Your task to perform on an android device: turn vacation reply on in the gmail app Image 0: 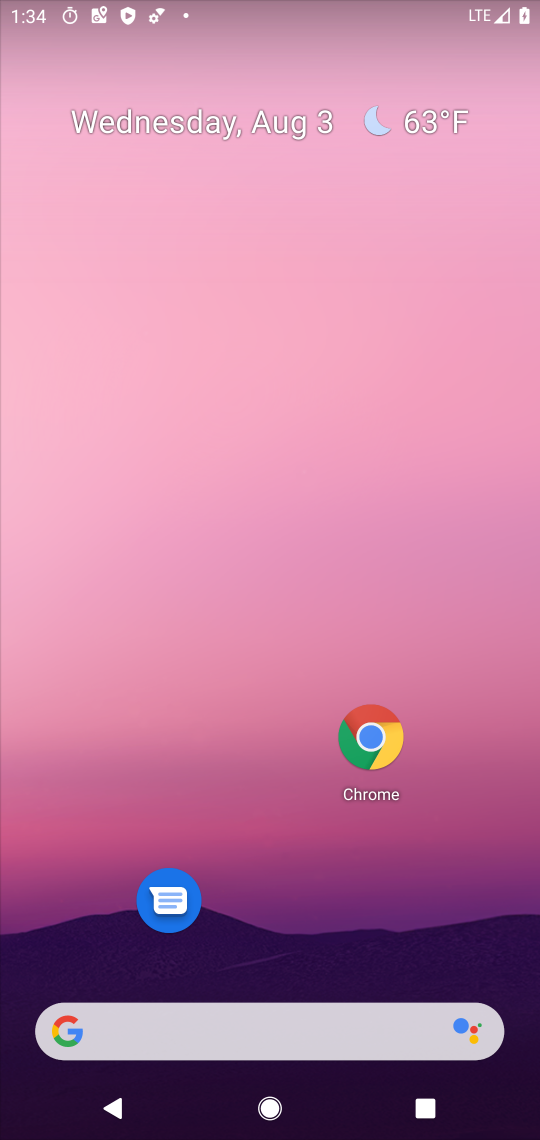
Step 0: drag from (262, 701) to (314, 61)
Your task to perform on an android device: turn vacation reply on in the gmail app Image 1: 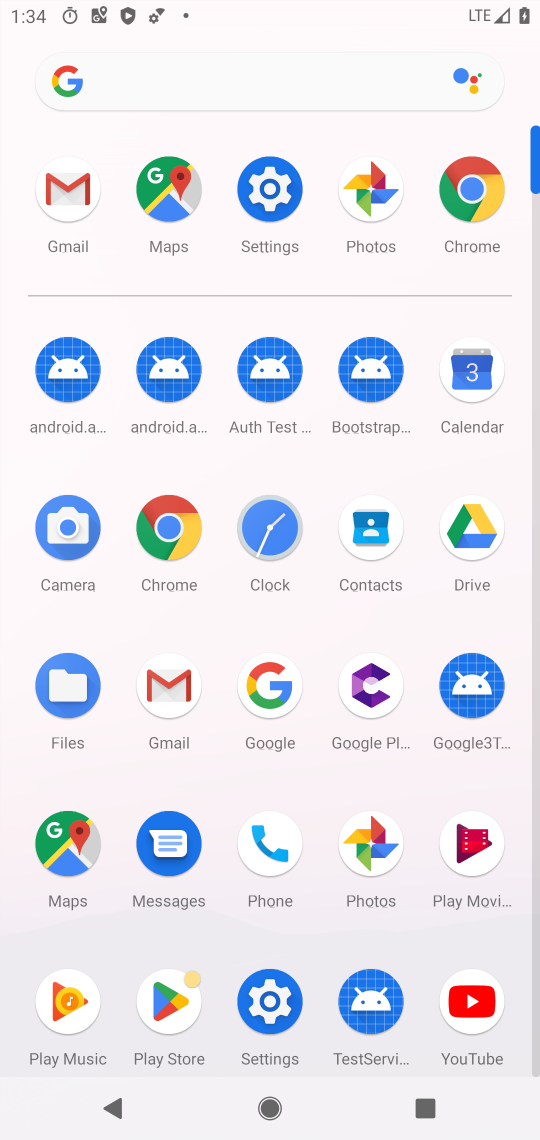
Step 1: click (82, 181)
Your task to perform on an android device: turn vacation reply on in the gmail app Image 2: 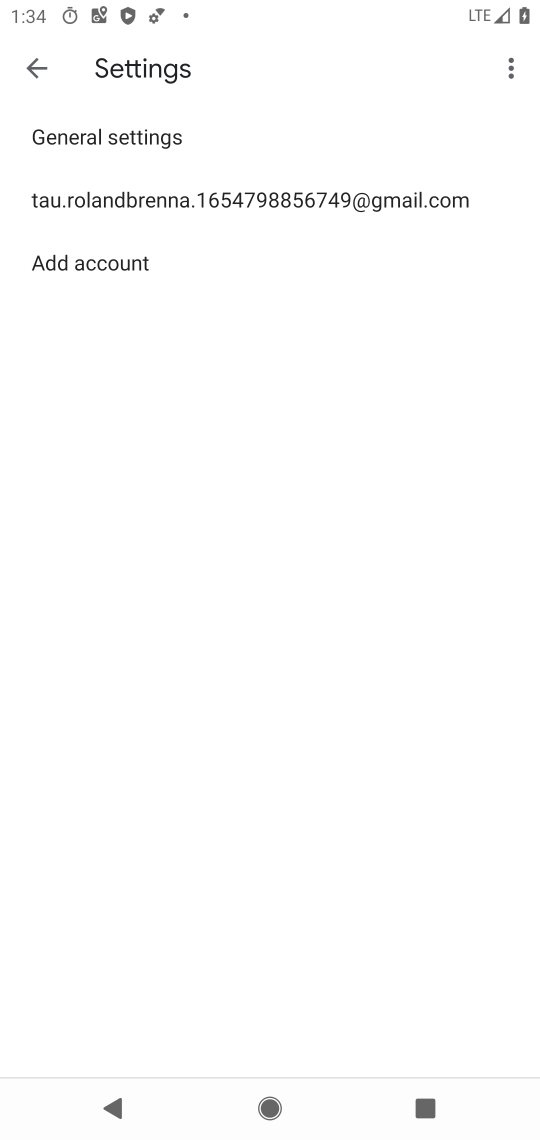
Step 2: click (154, 202)
Your task to perform on an android device: turn vacation reply on in the gmail app Image 3: 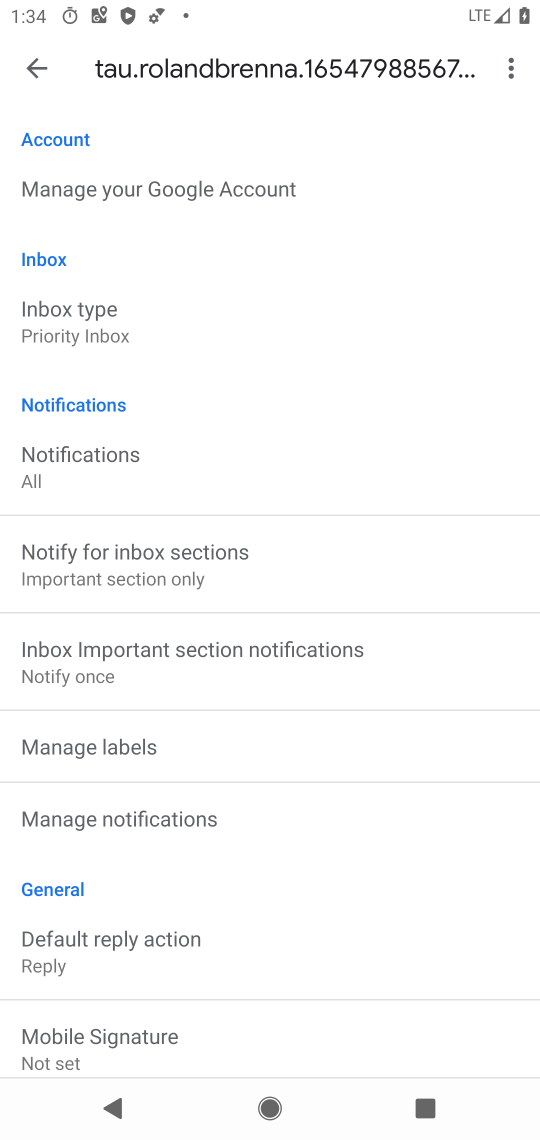
Step 3: drag from (321, 1028) to (331, 368)
Your task to perform on an android device: turn vacation reply on in the gmail app Image 4: 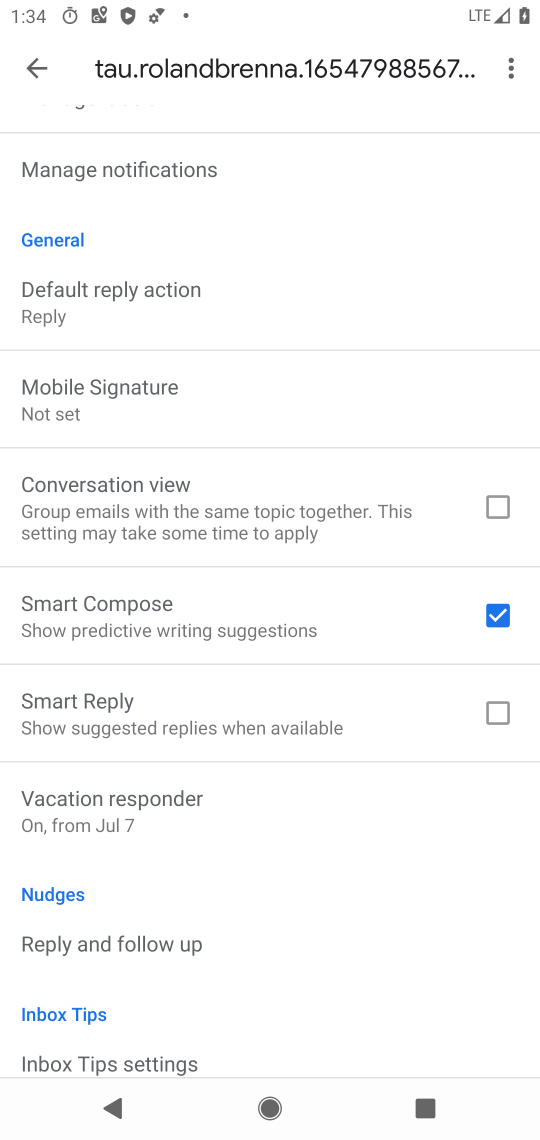
Step 4: drag from (338, 938) to (367, 257)
Your task to perform on an android device: turn vacation reply on in the gmail app Image 5: 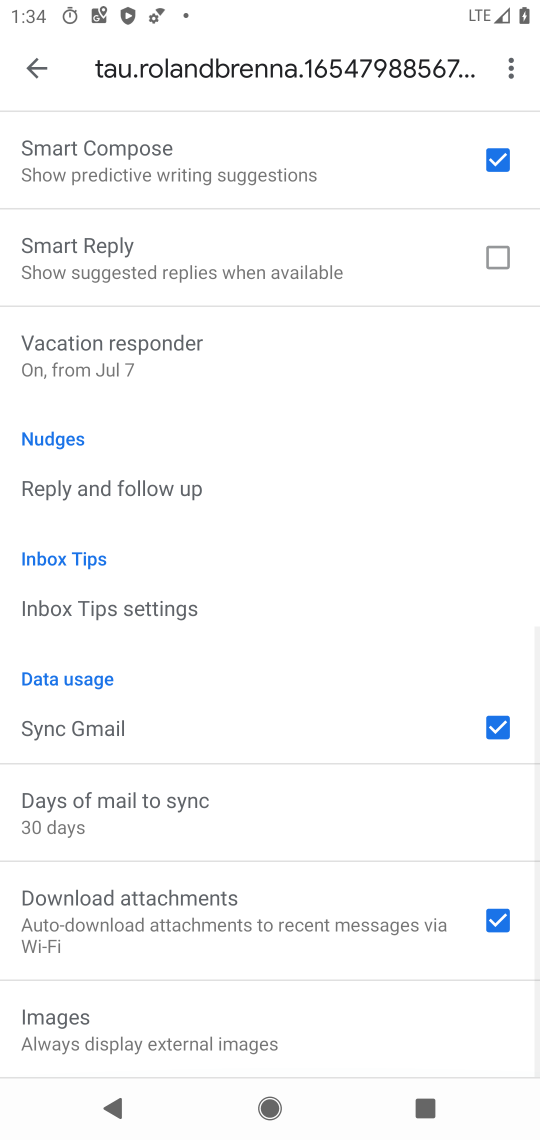
Step 5: drag from (186, 963) to (354, 330)
Your task to perform on an android device: turn vacation reply on in the gmail app Image 6: 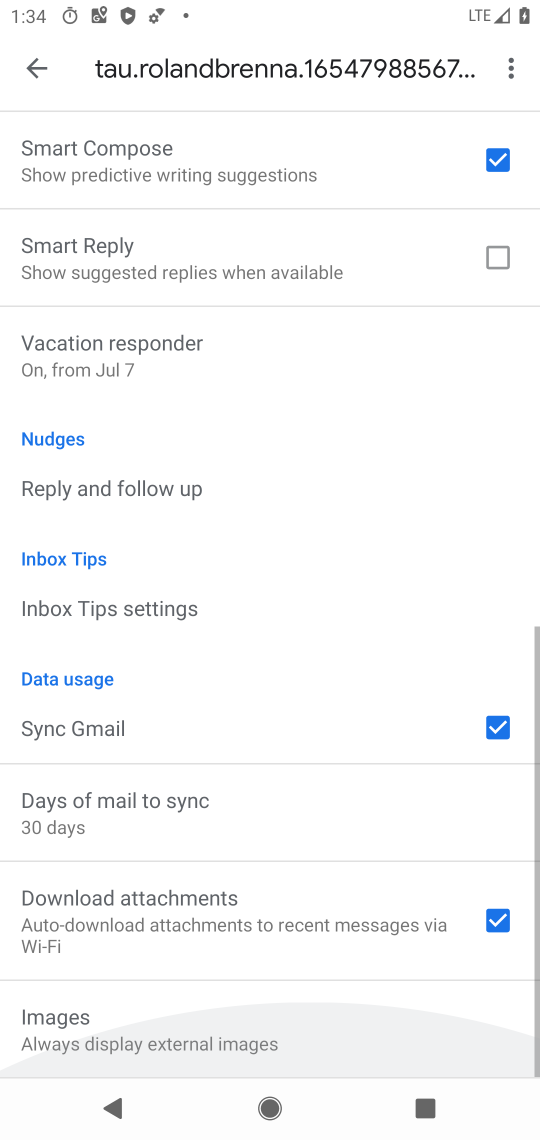
Step 6: drag from (354, 332) to (295, 634)
Your task to perform on an android device: turn vacation reply on in the gmail app Image 7: 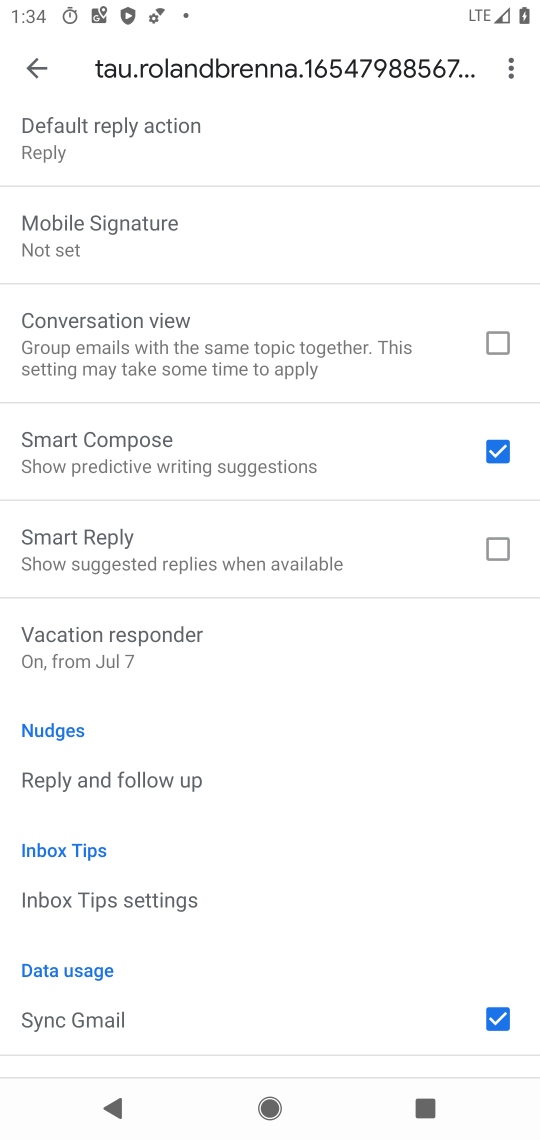
Step 7: click (122, 608)
Your task to perform on an android device: turn vacation reply on in the gmail app Image 8: 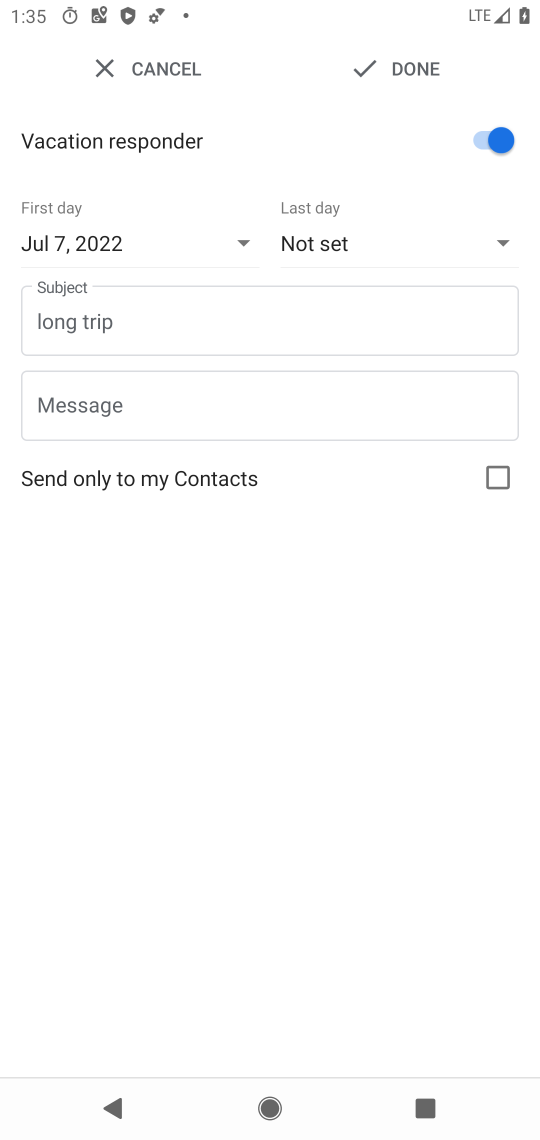
Step 8: task complete